Your task to perform on an android device: open app "Paramount+ | Peak Streaming" (install if not already installed) and go to login screen Image 0: 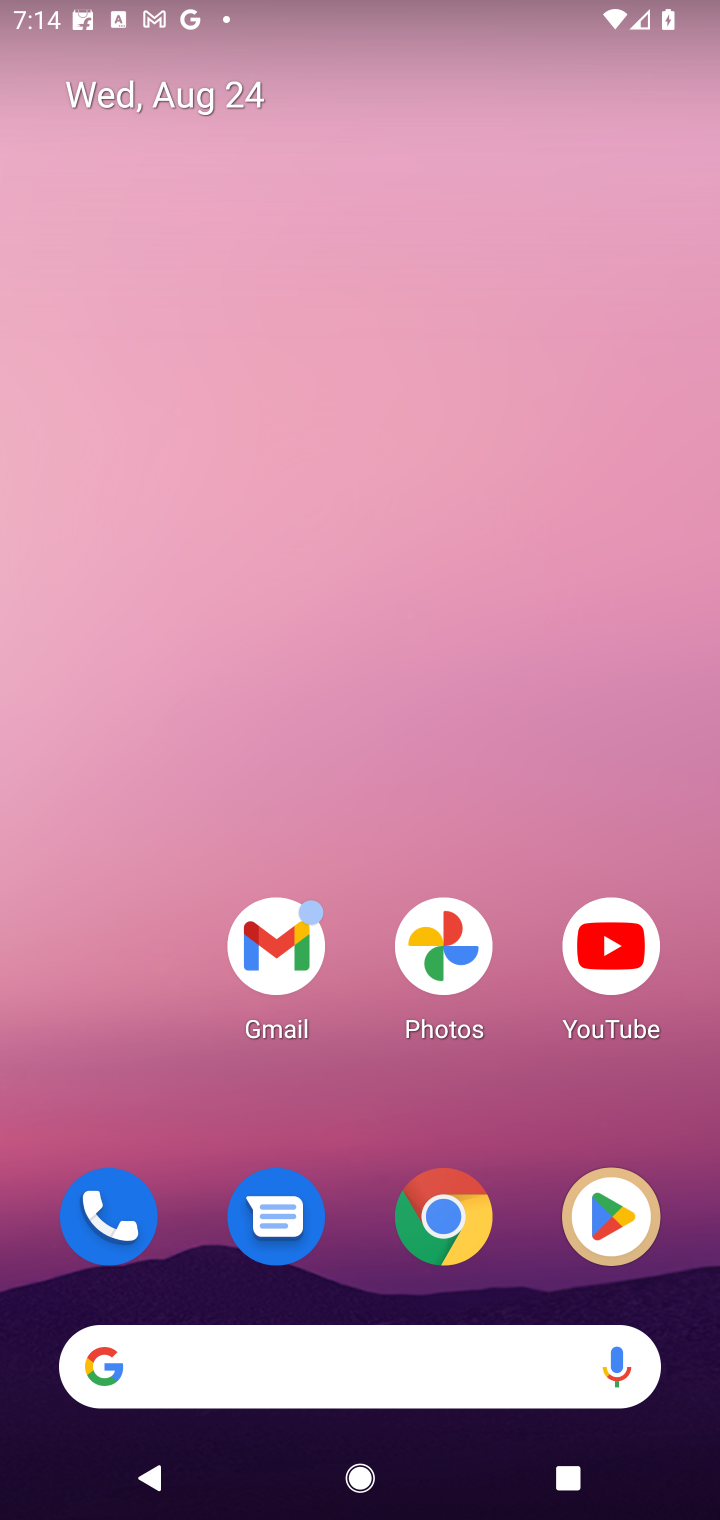
Step 0: click (577, 1199)
Your task to perform on an android device: open app "Paramount+ | Peak Streaming" (install if not already installed) and go to login screen Image 1: 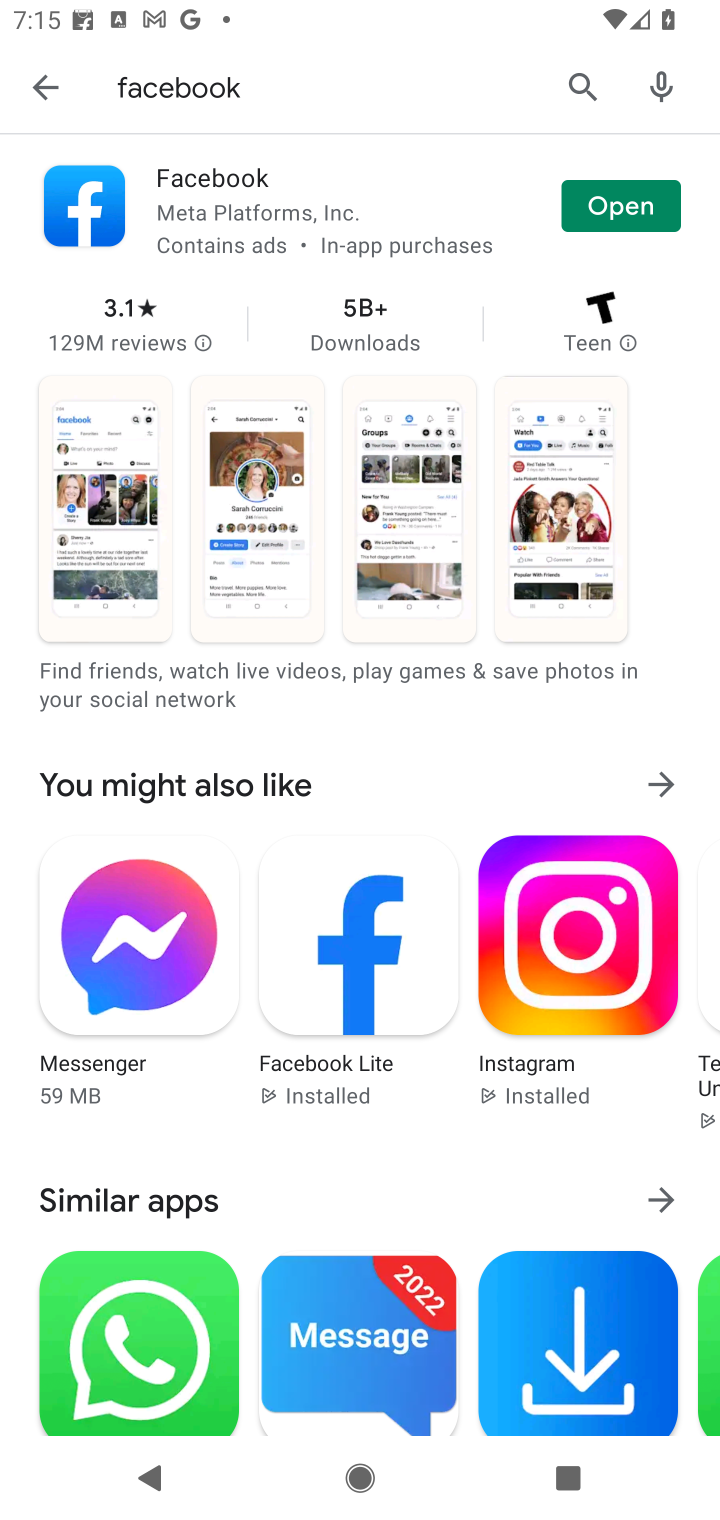
Step 1: click (577, 84)
Your task to perform on an android device: open app "Paramount+ | Peak Streaming" (install if not already installed) and go to login screen Image 2: 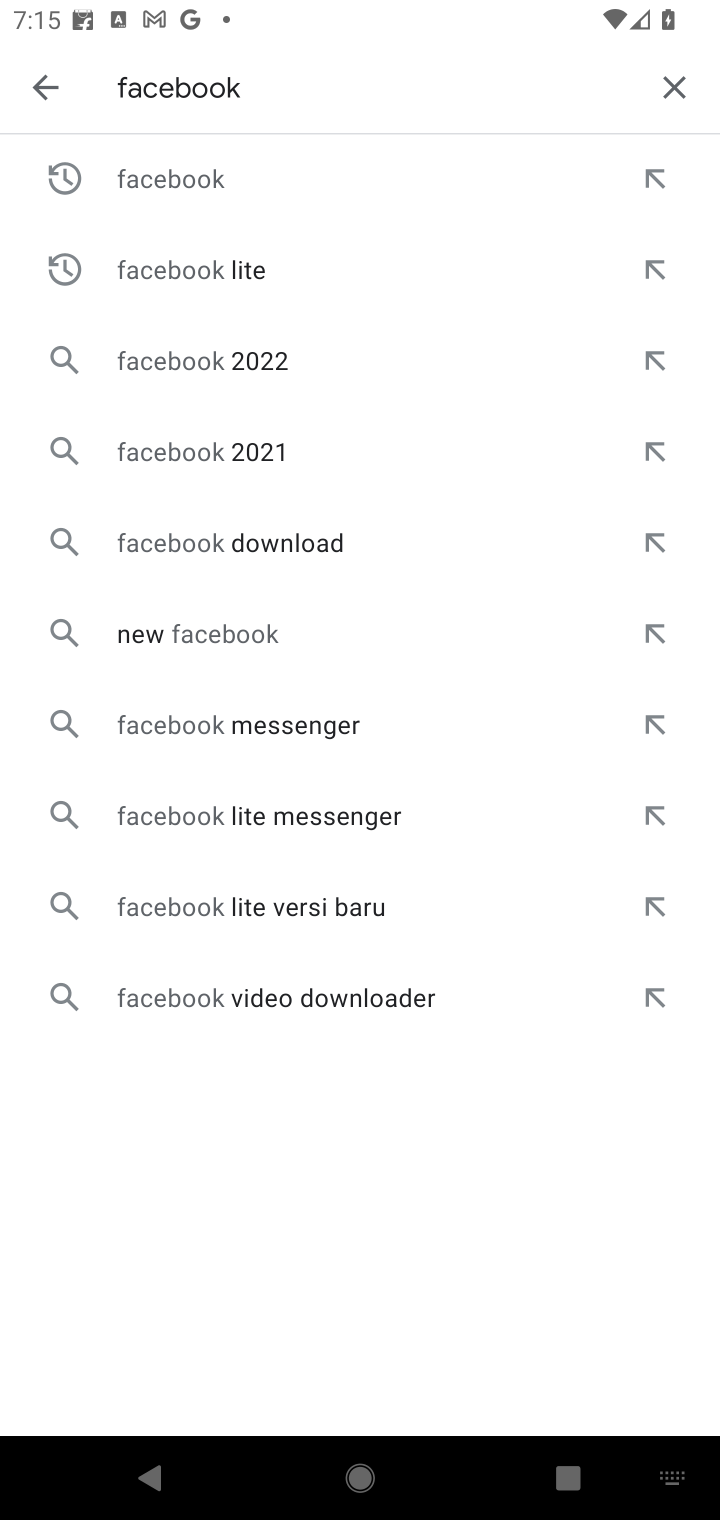
Step 2: click (667, 94)
Your task to perform on an android device: open app "Paramount+ | Peak Streaming" (install if not already installed) and go to login screen Image 3: 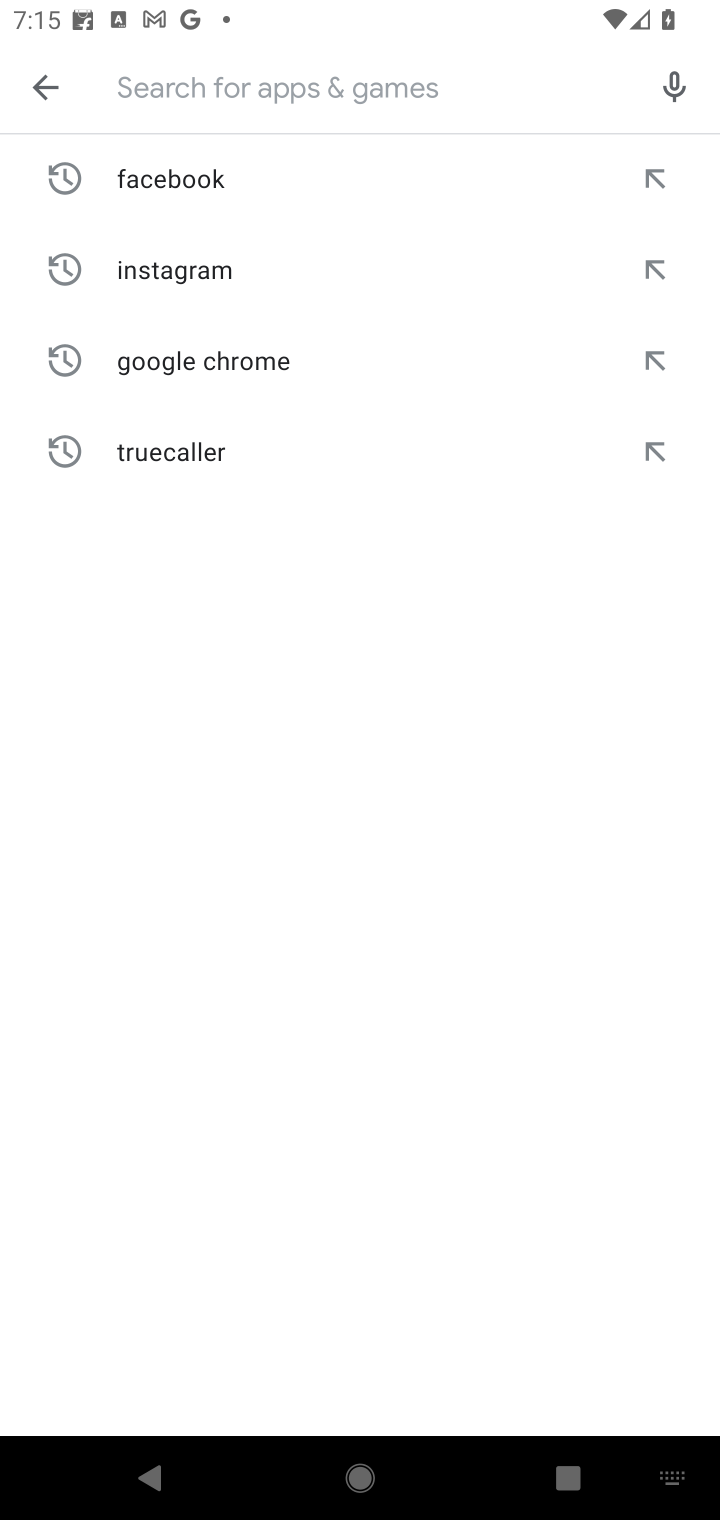
Step 3: type "Paramount+ "
Your task to perform on an android device: open app "Paramount+ | Peak Streaming" (install if not already installed) and go to login screen Image 4: 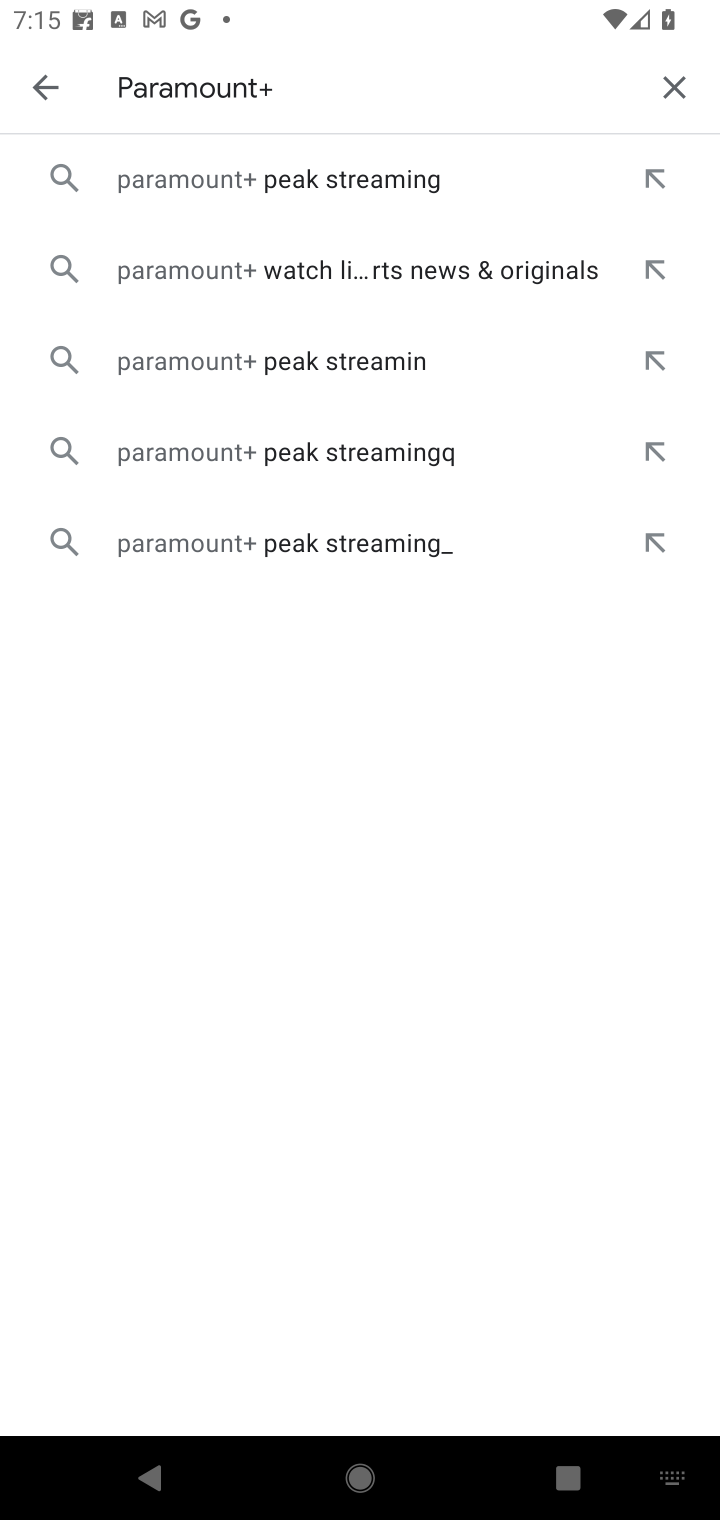
Step 4: click (431, 167)
Your task to perform on an android device: open app "Paramount+ | Peak Streaming" (install if not already installed) and go to login screen Image 5: 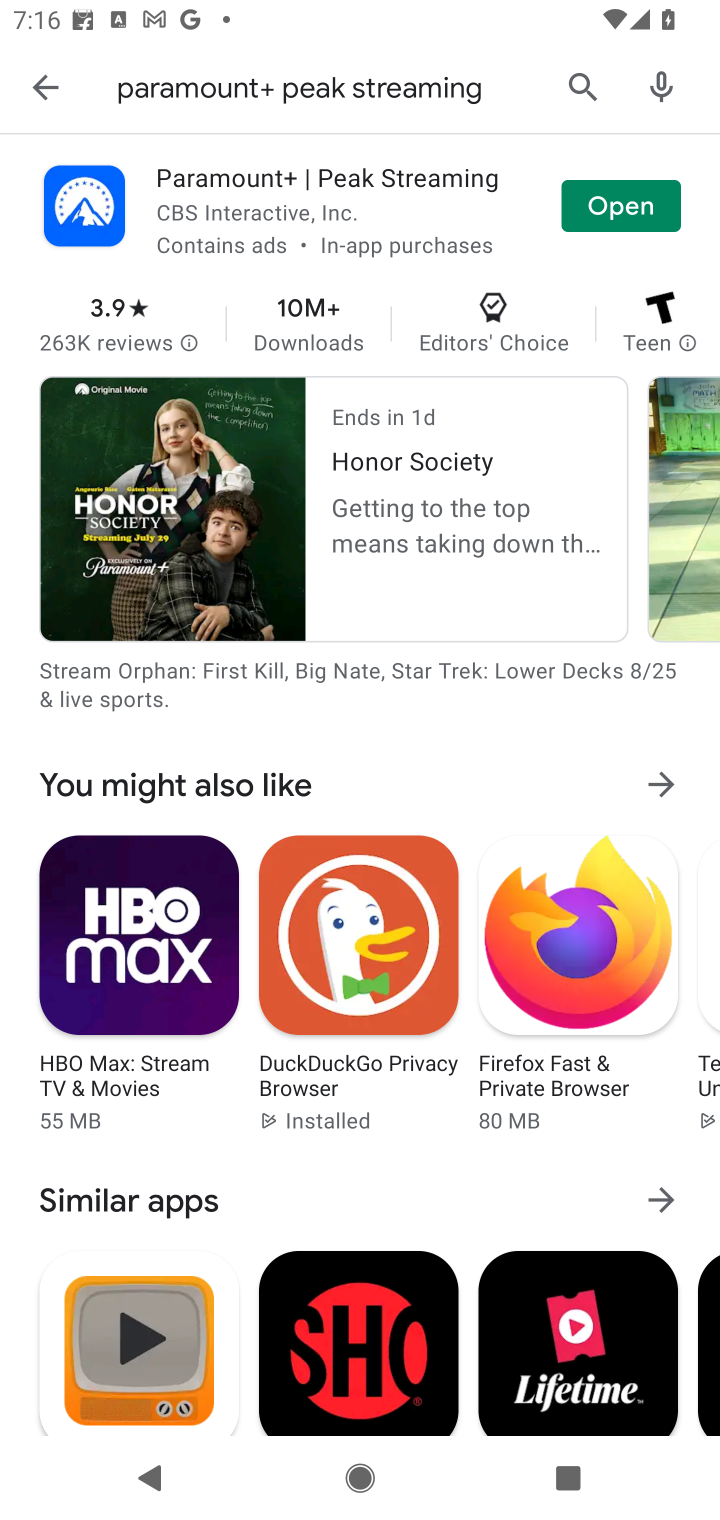
Step 5: click (606, 217)
Your task to perform on an android device: open app "Paramount+ | Peak Streaming" (install if not already installed) and go to login screen Image 6: 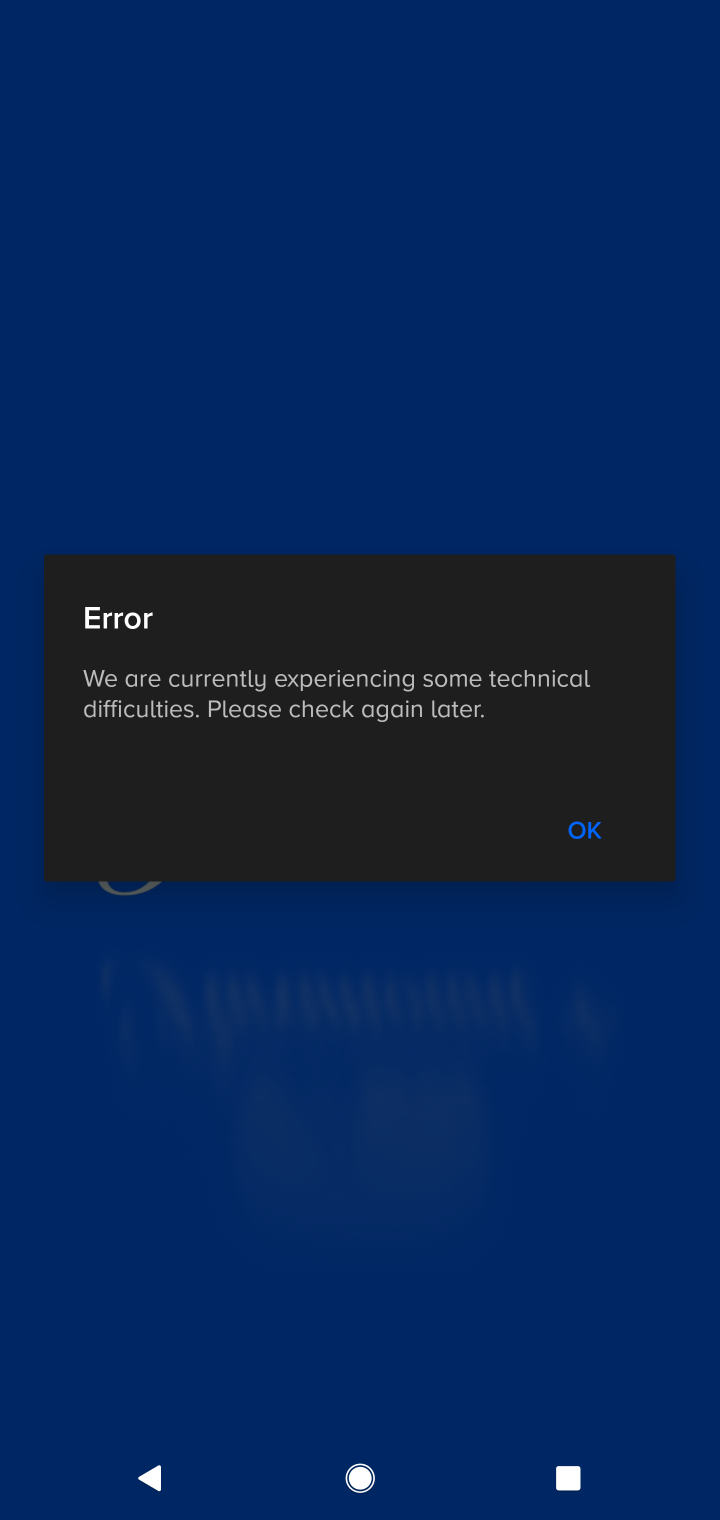
Step 6: task complete